Your task to perform on an android device: turn on priority inbox in the gmail app Image 0: 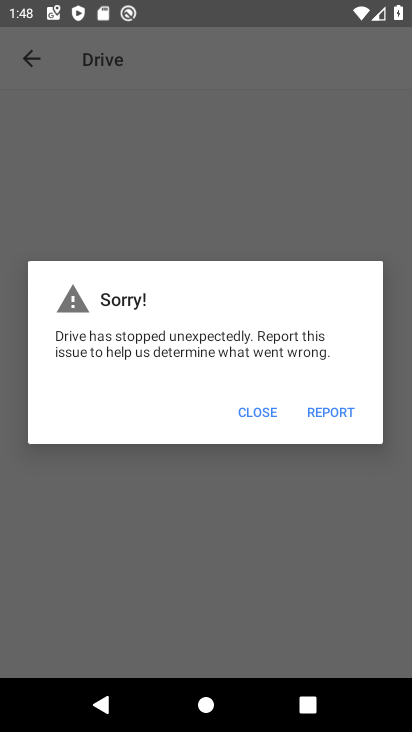
Step 0: press back button
Your task to perform on an android device: turn on priority inbox in the gmail app Image 1: 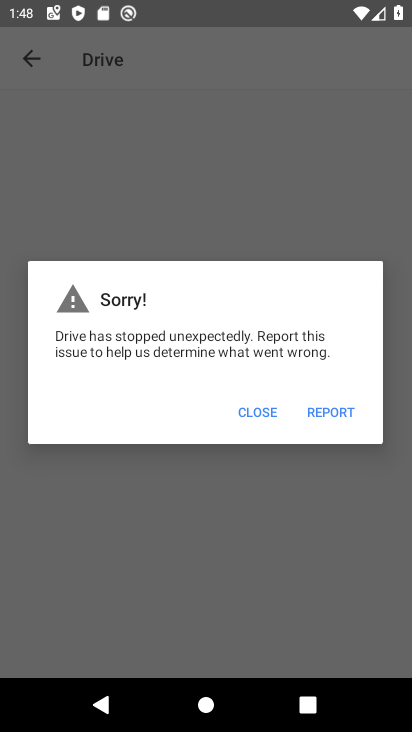
Step 1: press back button
Your task to perform on an android device: turn on priority inbox in the gmail app Image 2: 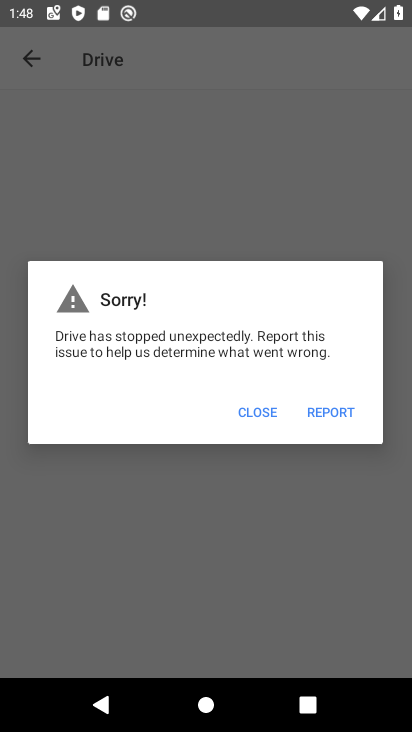
Step 2: press home button
Your task to perform on an android device: turn on priority inbox in the gmail app Image 3: 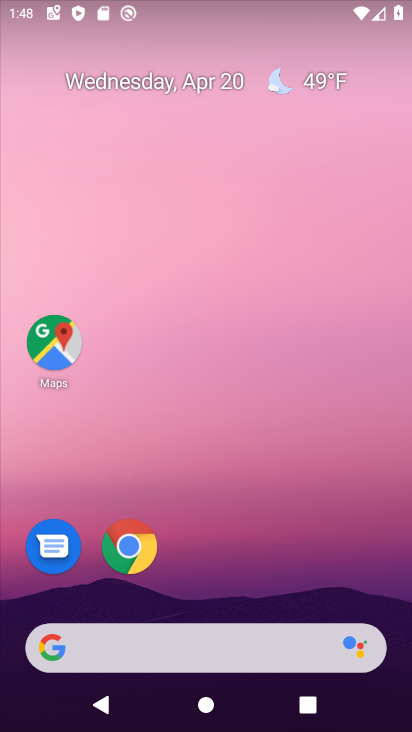
Step 3: drag from (292, 492) to (336, 22)
Your task to perform on an android device: turn on priority inbox in the gmail app Image 4: 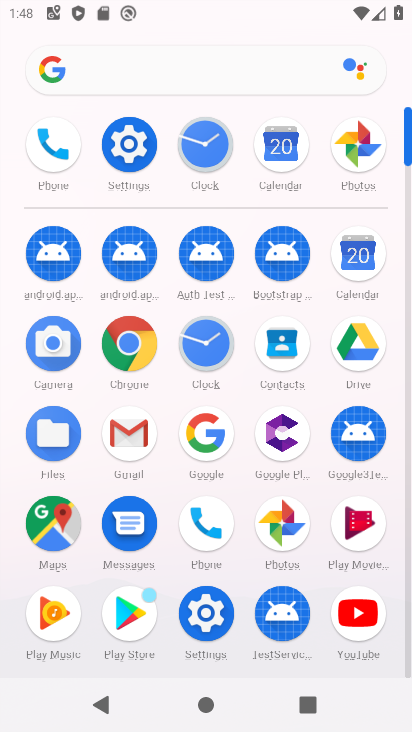
Step 4: click (119, 439)
Your task to perform on an android device: turn on priority inbox in the gmail app Image 5: 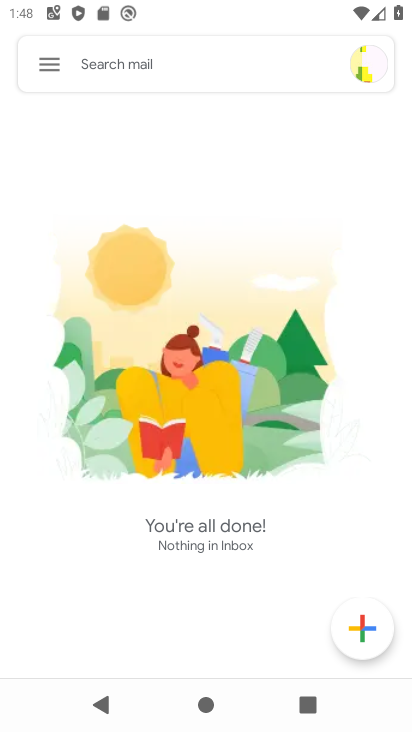
Step 5: click (39, 59)
Your task to perform on an android device: turn on priority inbox in the gmail app Image 6: 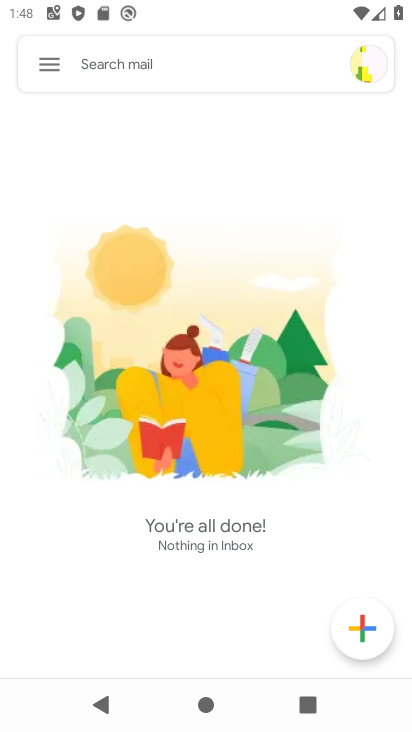
Step 6: click (39, 59)
Your task to perform on an android device: turn on priority inbox in the gmail app Image 7: 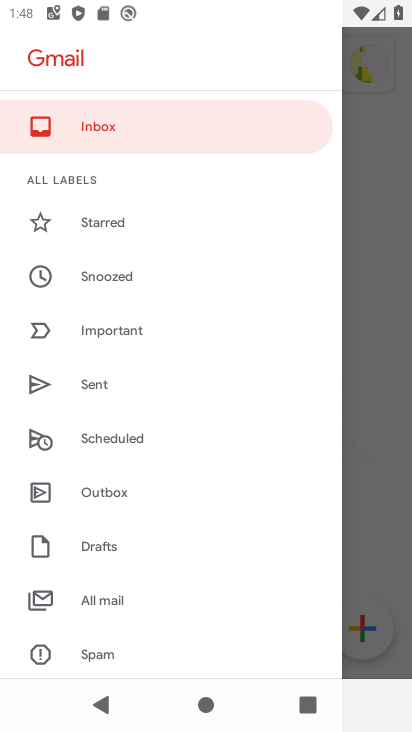
Step 7: drag from (147, 595) to (251, 85)
Your task to perform on an android device: turn on priority inbox in the gmail app Image 8: 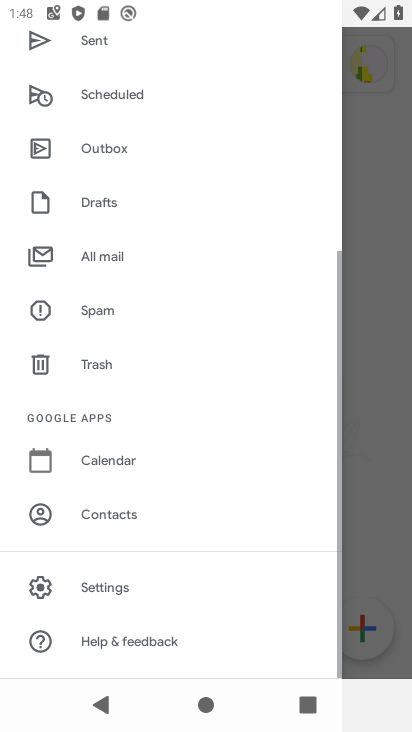
Step 8: click (127, 580)
Your task to perform on an android device: turn on priority inbox in the gmail app Image 9: 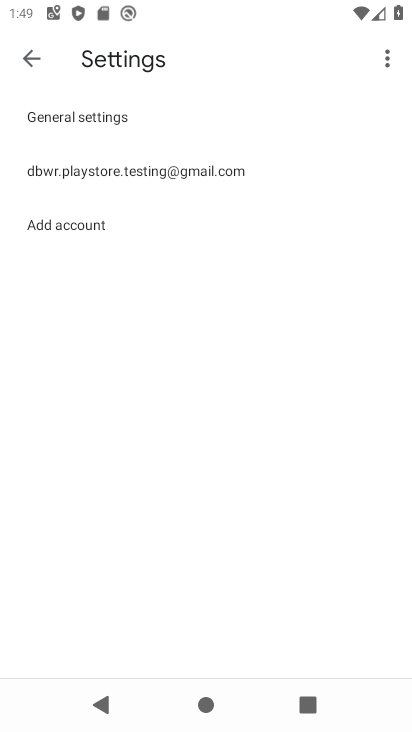
Step 9: click (148, 160)
Your task to perform on an android device: turn on priority inbox in the gmail app Image 10: 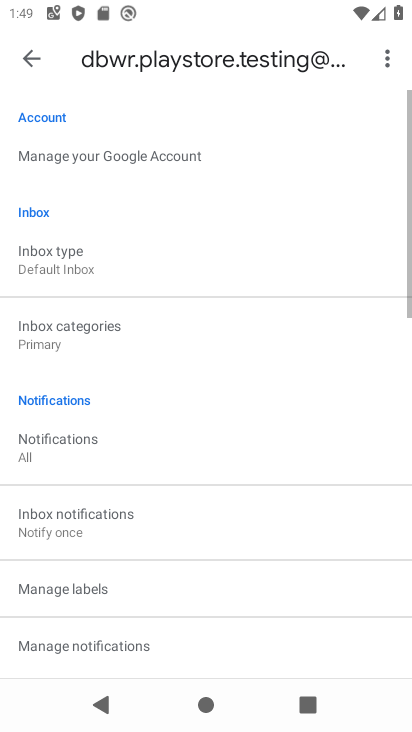
Step 10: click (47, 261)
Your task to perform on an android device: turn on priority inbox in the gmail app Image 11: 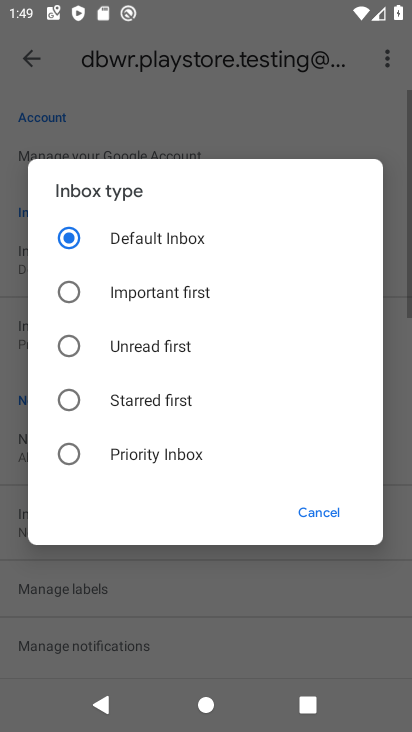
Step 11: click (75, 453)
Your task to perform on an android device: turn on priority inbox in the gmail app Image 12: 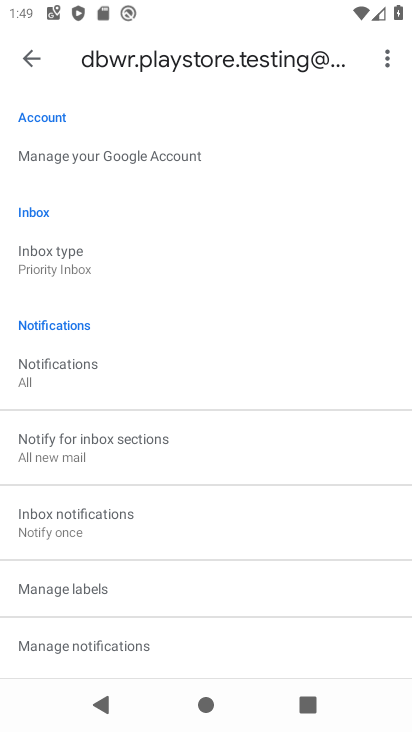
Step 12: task complete